Your task to perform on an android device: Show me popular games on the Play Store Image 0: 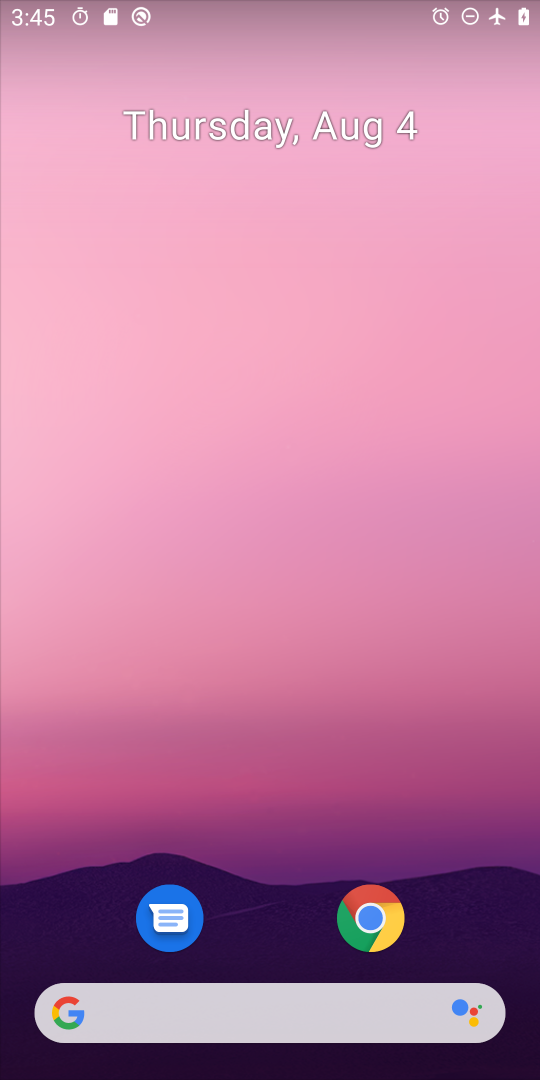
Step 0: drag from (274, 577) to (276, 282)
Your task to perform on an android device: Show me popular games on the Play Store Image 1: 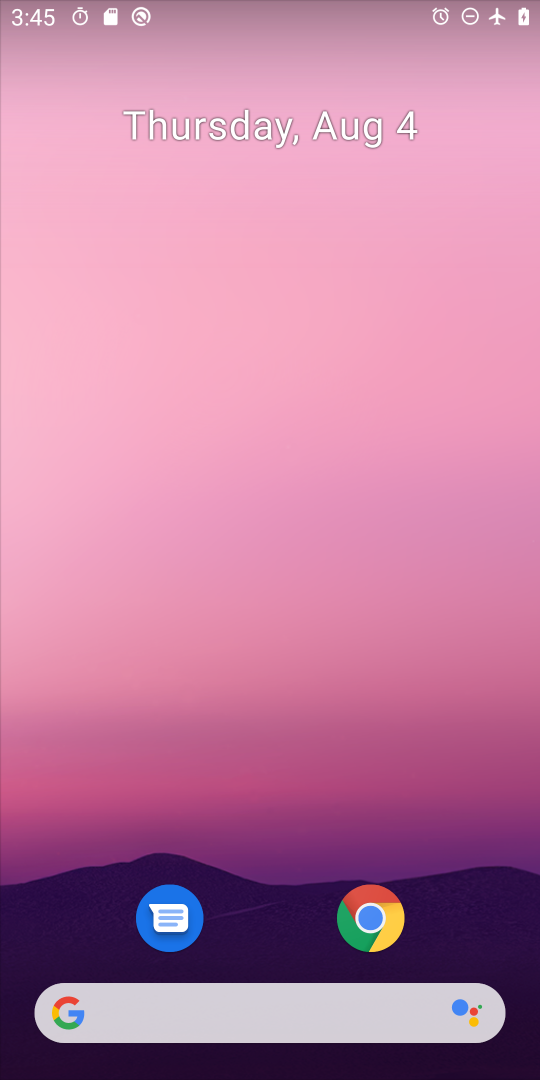
Step 1: drag from (279, 702) to (322, 274)
Your task to perform on an android device: Show me popular games on the Play Store Image 2: 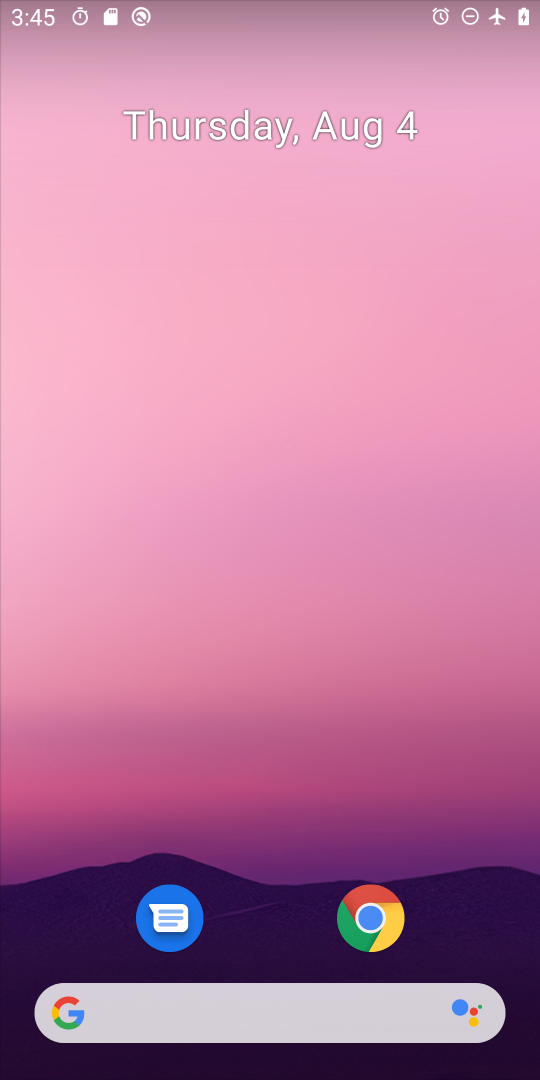
Step 2: drag from (239, 902) to (180, 217)
Your task to perform on an android device: Show me popular games on the Play Store Image 3: 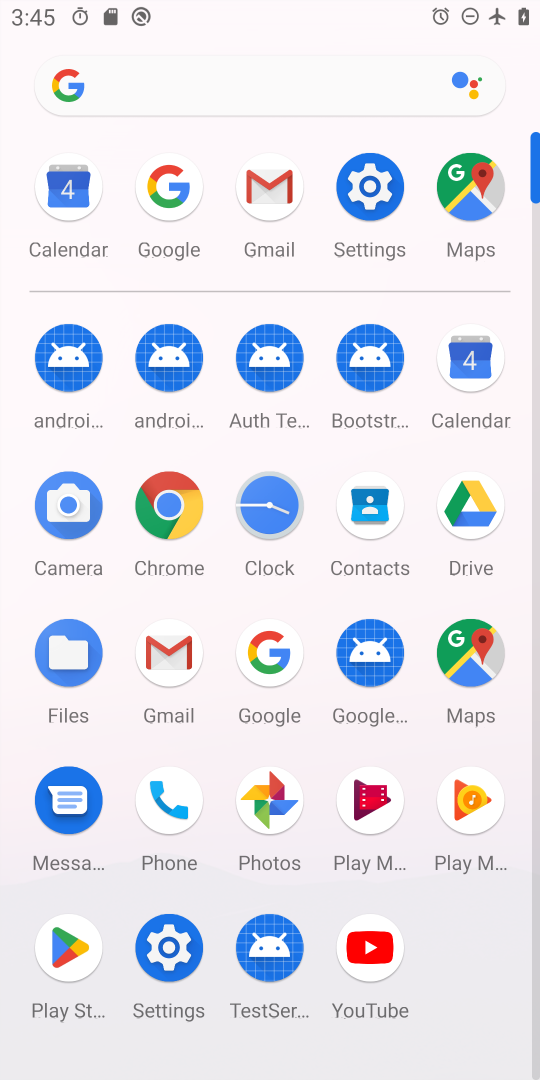
Step 3: click (86, 958)
Your task to perform on an android device: Show me popular games on the Play Store Image 4: 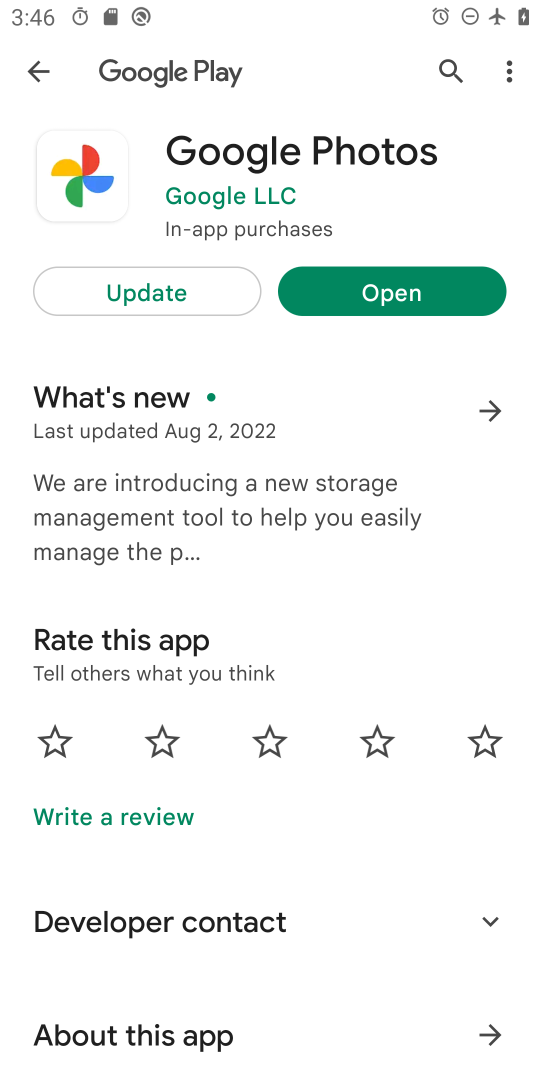
Step 4: click (30, 79)
Your task to perform on an android device: Show me popular games on the Play Store Image 5: 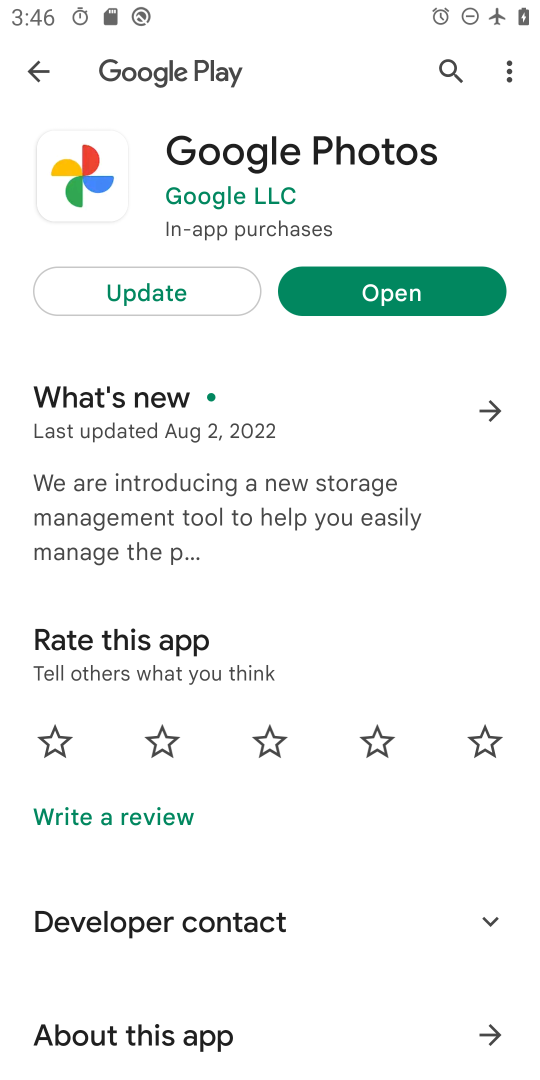
Step 5: click (46, 79)
Your task to perform on an android device: Show me popular games on the Play Store Image 6: 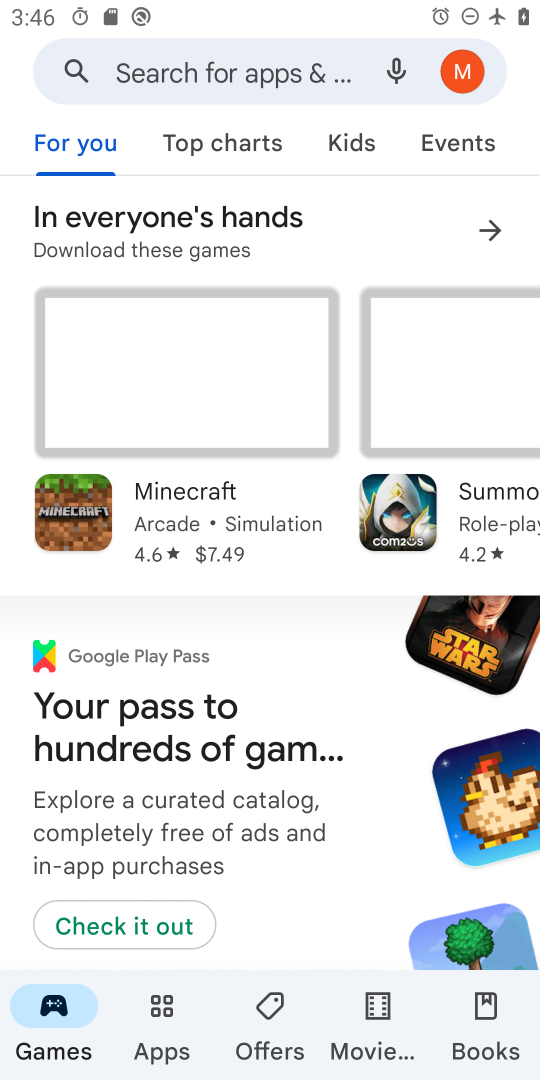
Step 6: click (209, 152)
Your task to perform on an android device: Show me popular games on the Play Store Image 7: 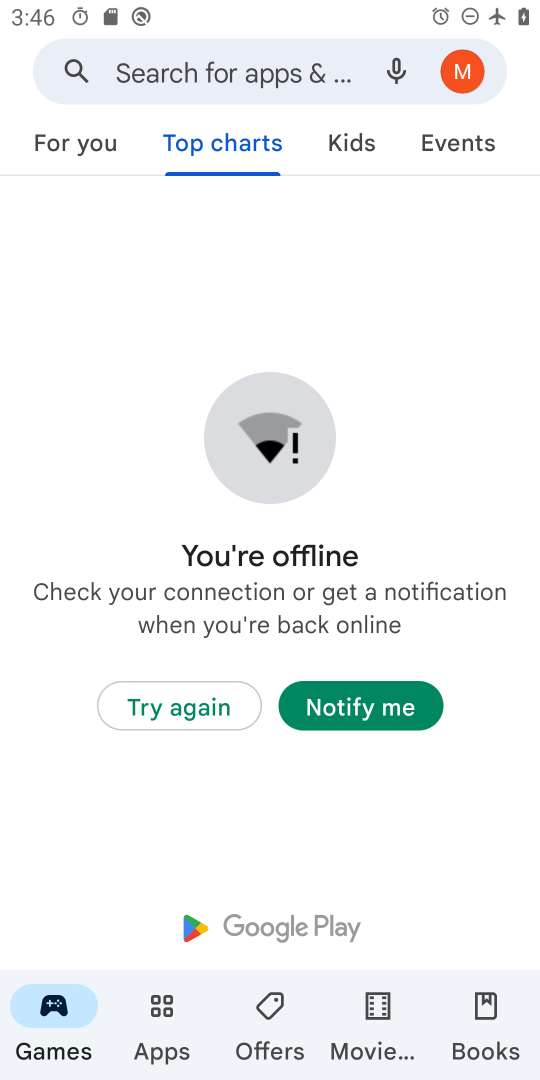
Step 7: task complete